Your task to perform on an android device: turn off picture-in-picture Image 0: 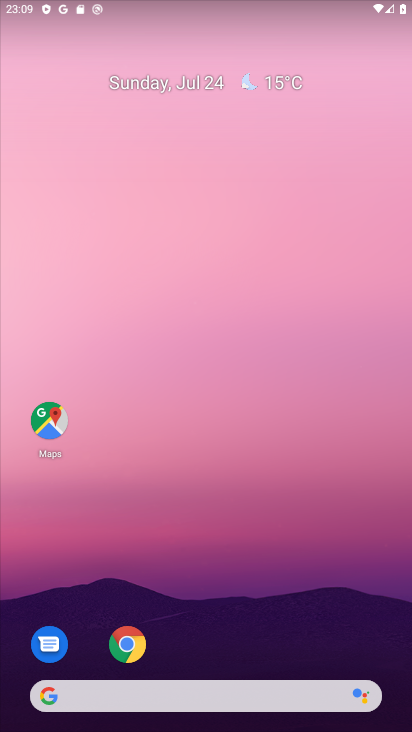
Step 0: drag from (223, 729) to (222, 81)
Your task to perform on an android device: turn off picture-in-picture Image 1: 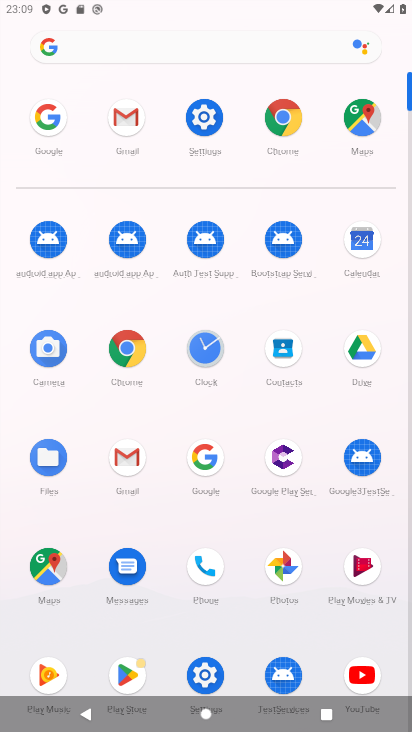
Step 1: click (193, 104)
Your task to perform on an android device: turn off picture-in-picture Image 2: 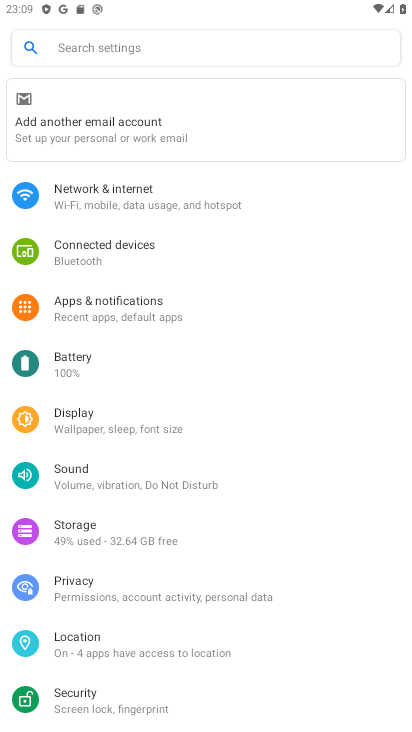
Step 2: click (118, 301)
Your task to perform on an android device: turn off picture-in-picture Image 3: 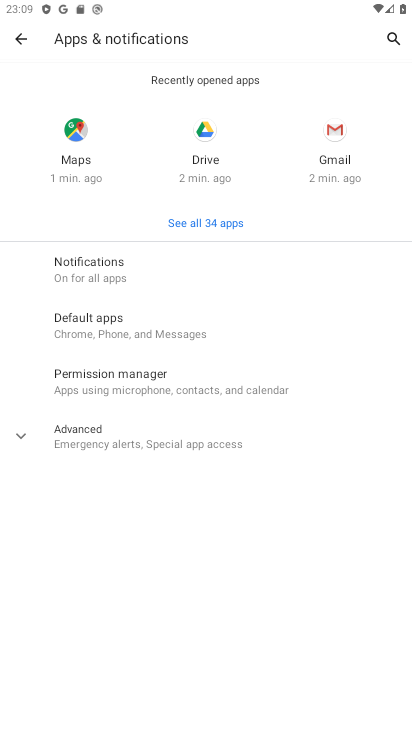
Step 3: click (110, 441)
Your task to perform on an android device: turn off picture-in-picture Image 4: 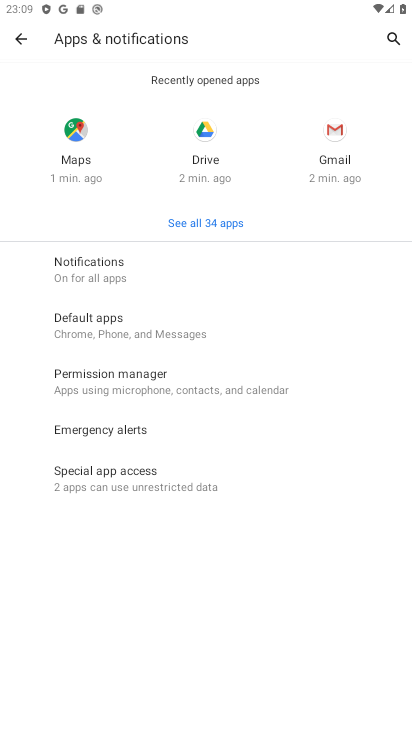
Step 4: click (107, 471)
Your task to perform on an android device: turn off picture-in-picture Image 5: 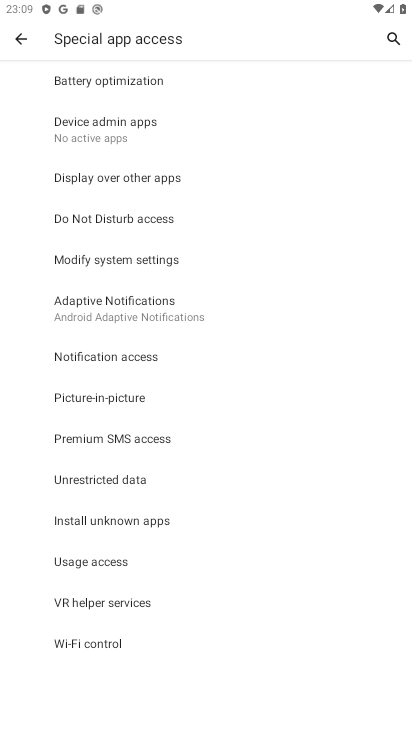
Step 5: click (109, 398)
Your task to perform on an android device: turn off picture-in-picture Image 6: 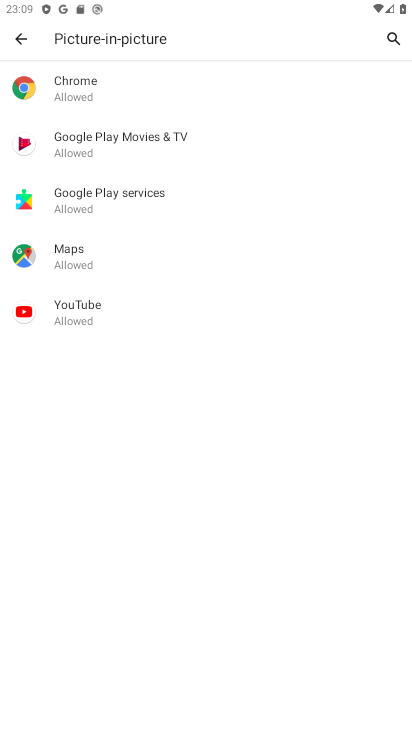
Step 6: click (85, 310)
Your task to perform on an android device: turn off picture-in-picture Image 7: 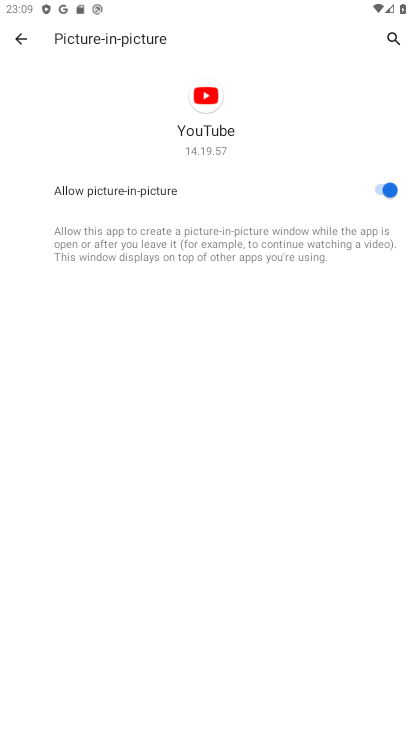
Step 7: click (378, 193)
Your task to perform on an android device: turn off picture-in-picture Image 8: 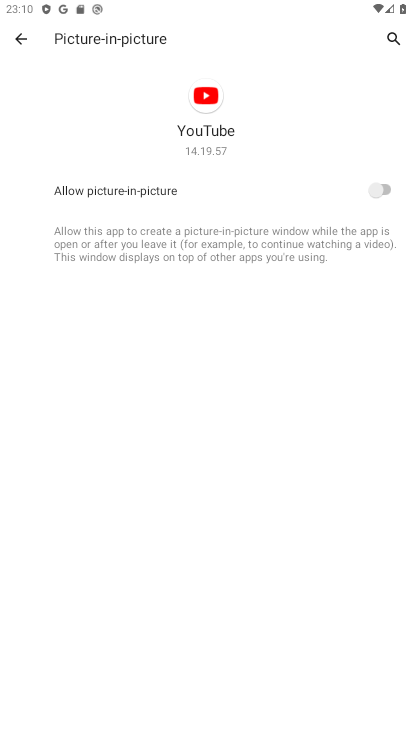
Step 8: task complete